Your task to perform on an android device: Open Google Chrome and open the bookmarks view Image 0: 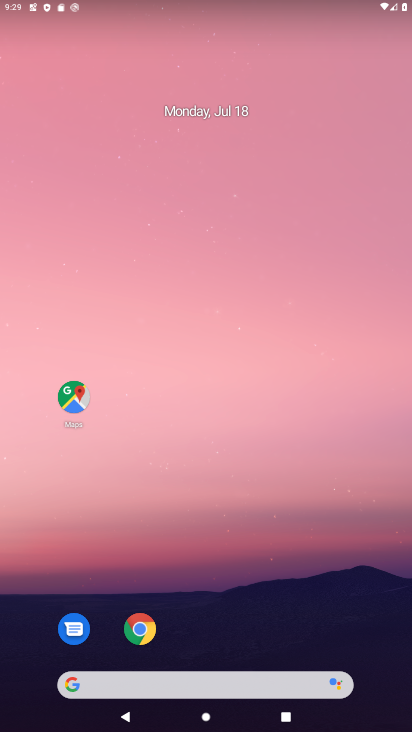
Step 0: drag from (312, 565) to (263, 56)
Your task to perform on an android device: Open Google Chrome and open the bookmarks view Image 1: 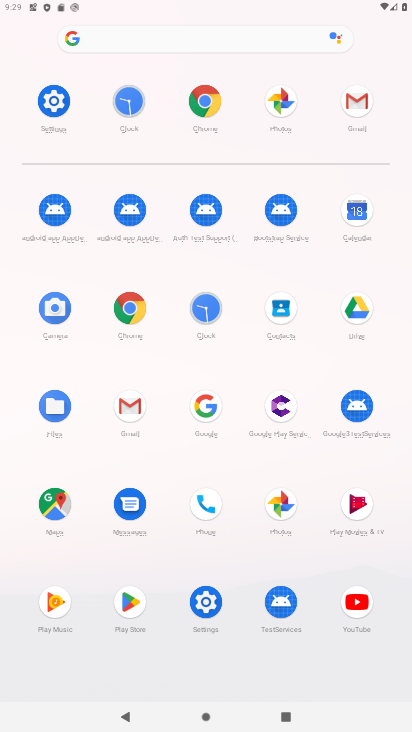
Step 1: click (133, 307)
Your task to perform on an android device: Open Google Chrome and open the bookmarks view Image 2: 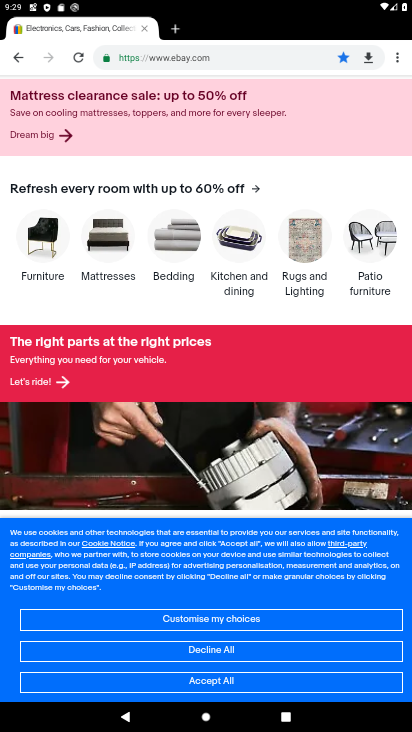
Step 2: task complete